Your task to perform on an android device: turn off wifi Image 0: 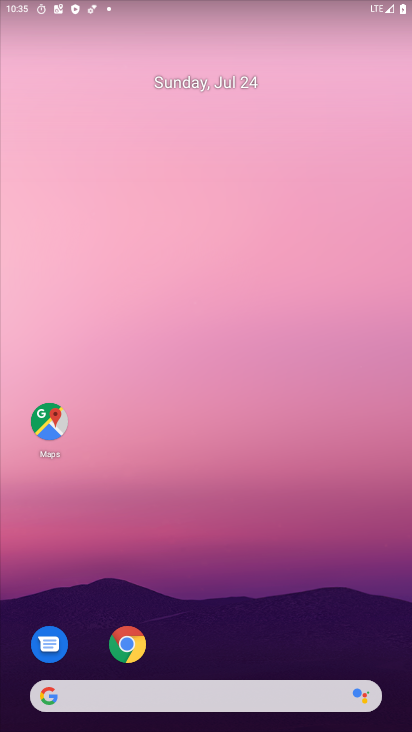
Step 0: drag from (226, 576) to (229, 78)
Your task to perform on an android device: turn off wifi Image 1: 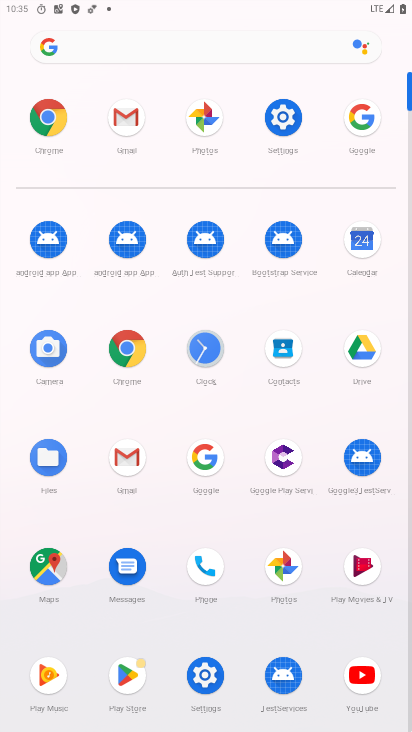
Step 1: click (273, 122)
Your task to perform on an android device: turn off wifi Image 2: 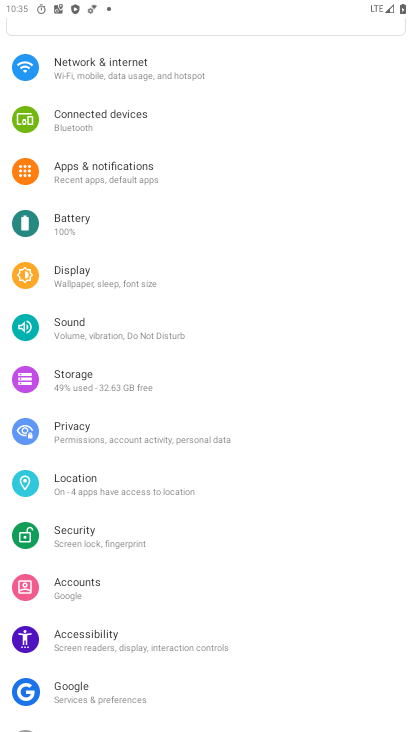
Step 2: click (151, 69)
Your task to perform on an android device: turn off wifi Image 3: 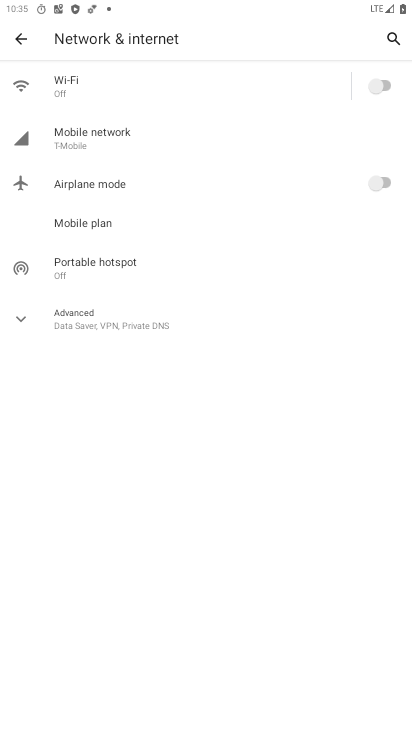
Step 3: task complete